Your task to perform on an android device: When is my next meeting? Image 0: 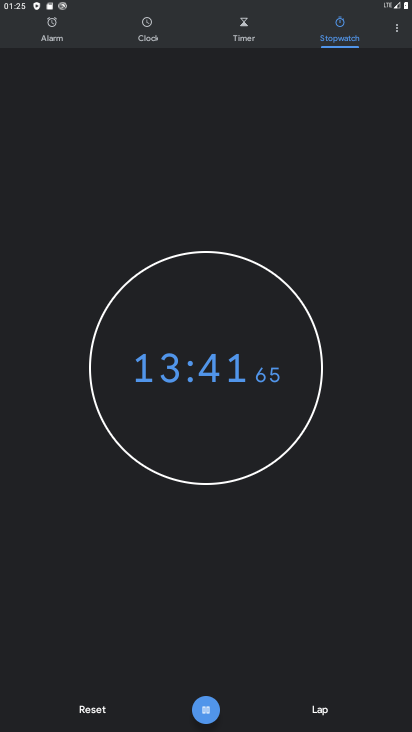
Step 0: press home button
Your task to perform on an android device: When is my next meeting? Image 1: 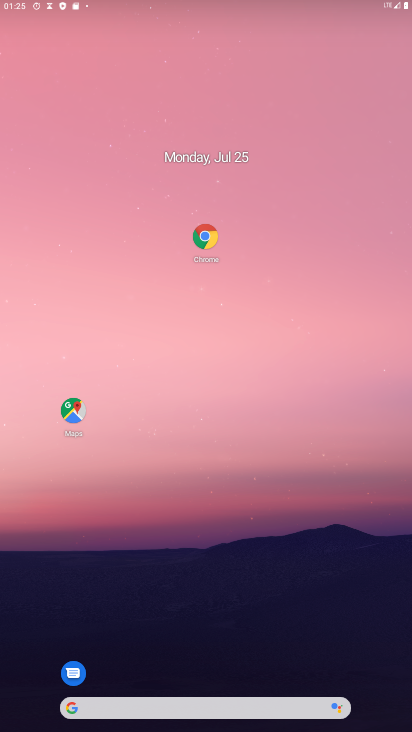
Step 1: drag from (279, 600) to (363, 23)
Your task to perform on an android device: When is my next meeting? Image 2: 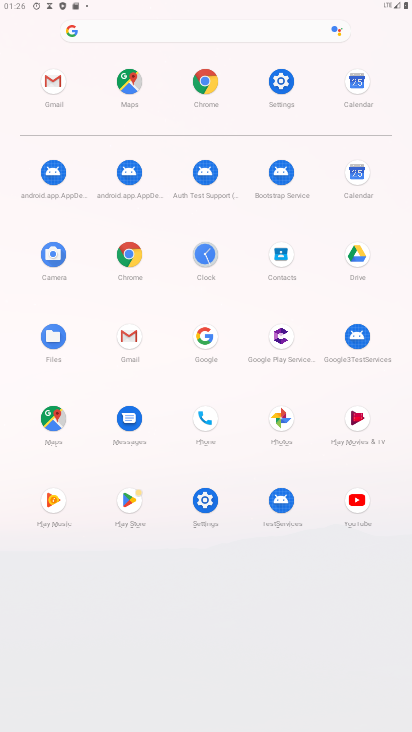
Step 2: click (351, 157)
Your task to perform on an android device: When is my next meeting? Image 3: 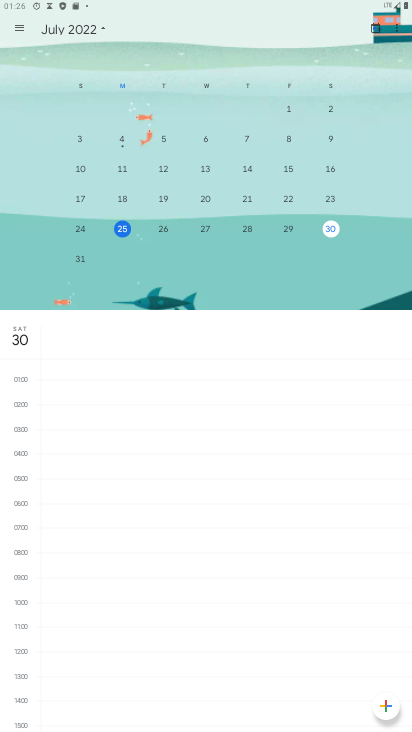
Step 3: click (199, 232)
Your task to perform on an android device: When is my next meeting? Image 4: 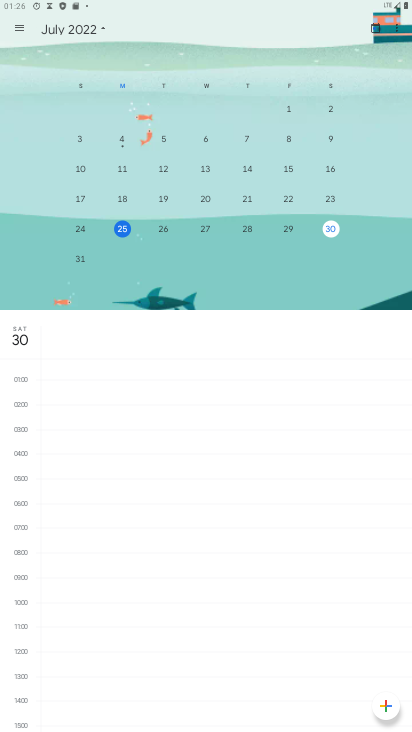
Step 4: task complete